Your task to perform on an android device: Open Maps and search for coffee Image 0: 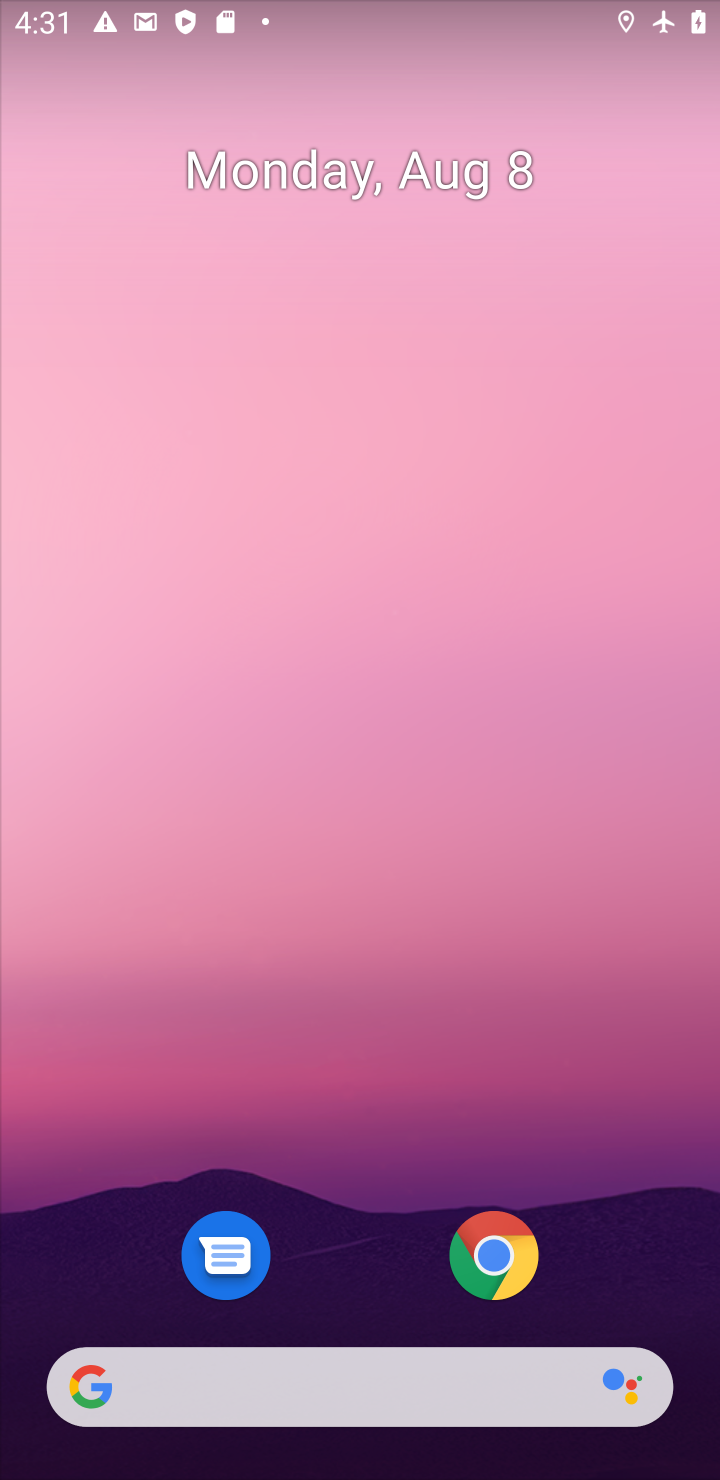
Step 0: drag from (366, 1409) to (378, 330)
Your task to perform on an android device: Open Maps and search for coffee Image 1: 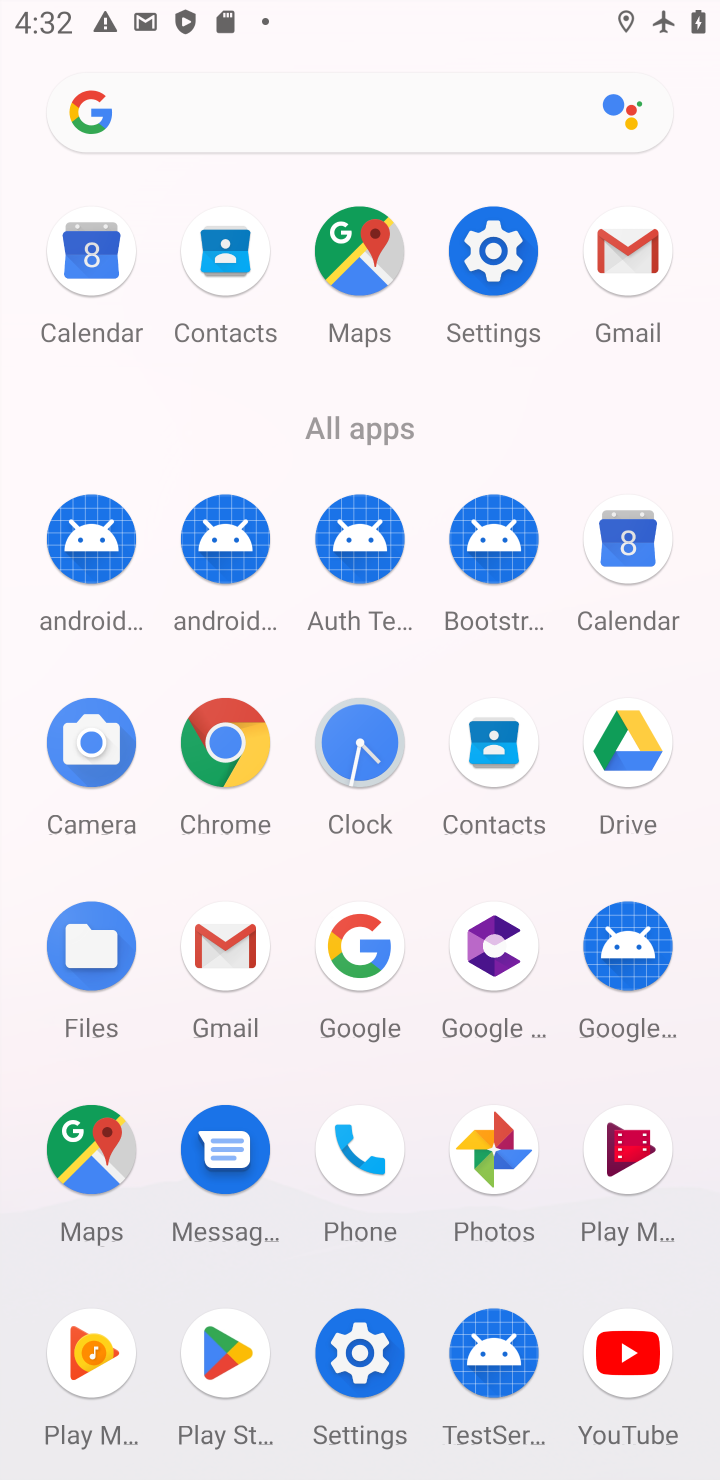
Step 1: click (97, 1156)
Your task to perform on an android device: Open Maps and search for coffee Image 2: 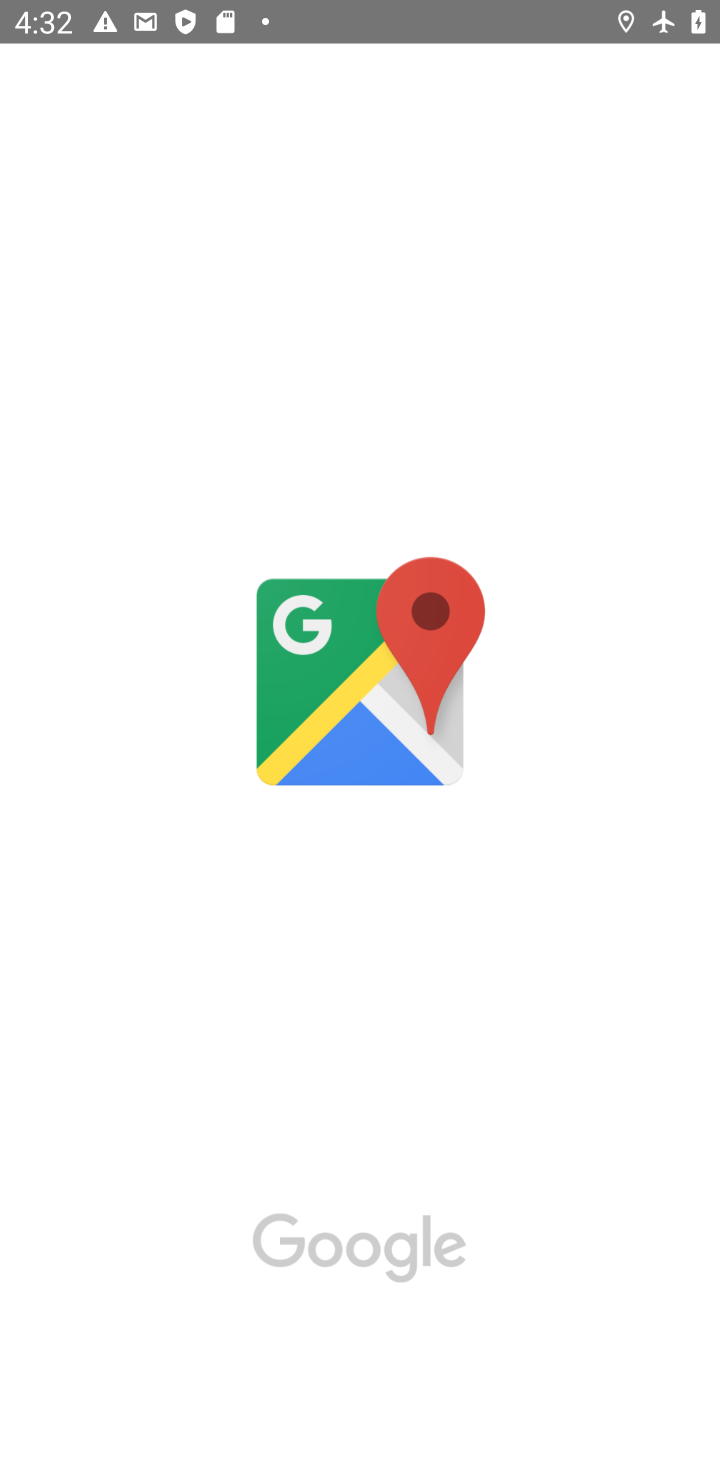
Step 2: task complete